Your task to perform on an android device: allow notifications from all sites in the chrome app Image 0: 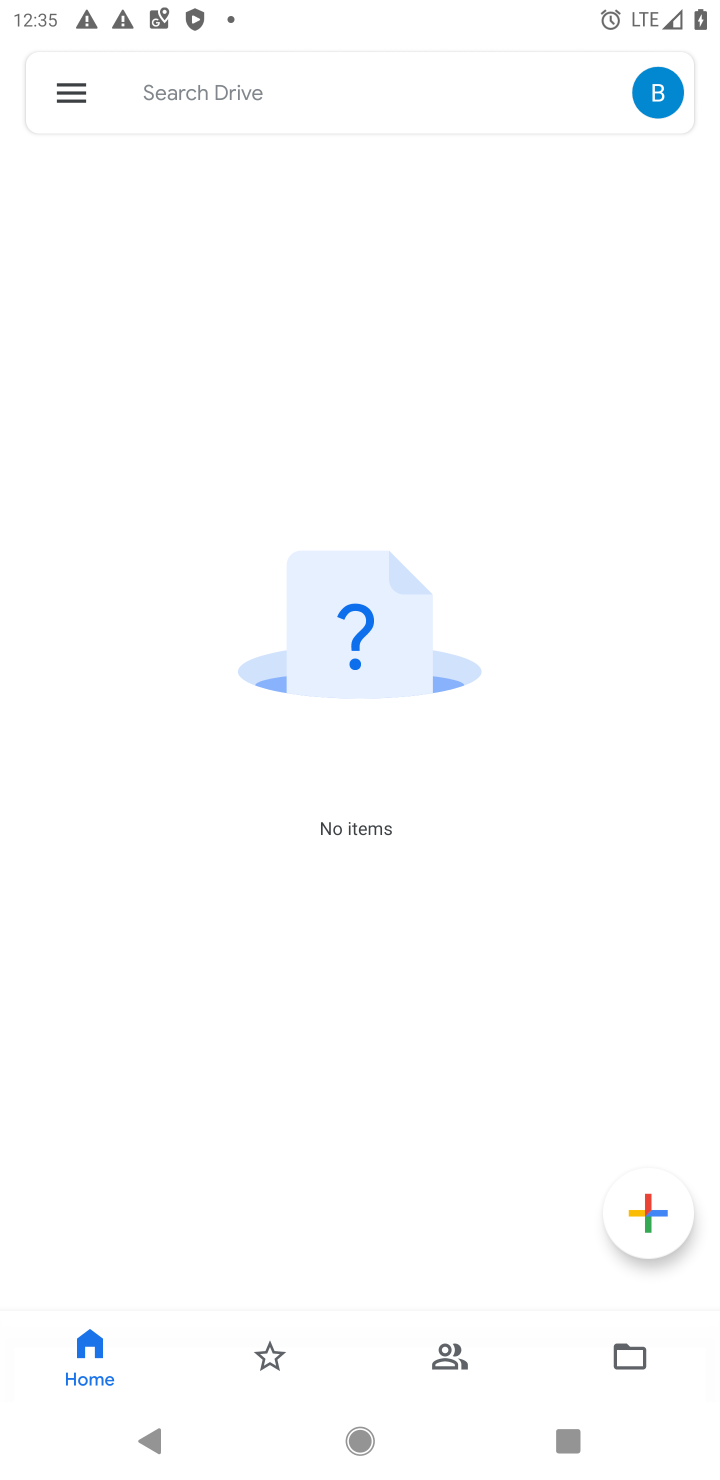
Step 0: press home button
Your task to perform on an android device: allow notifications from all sites in the chrome app Image 1: 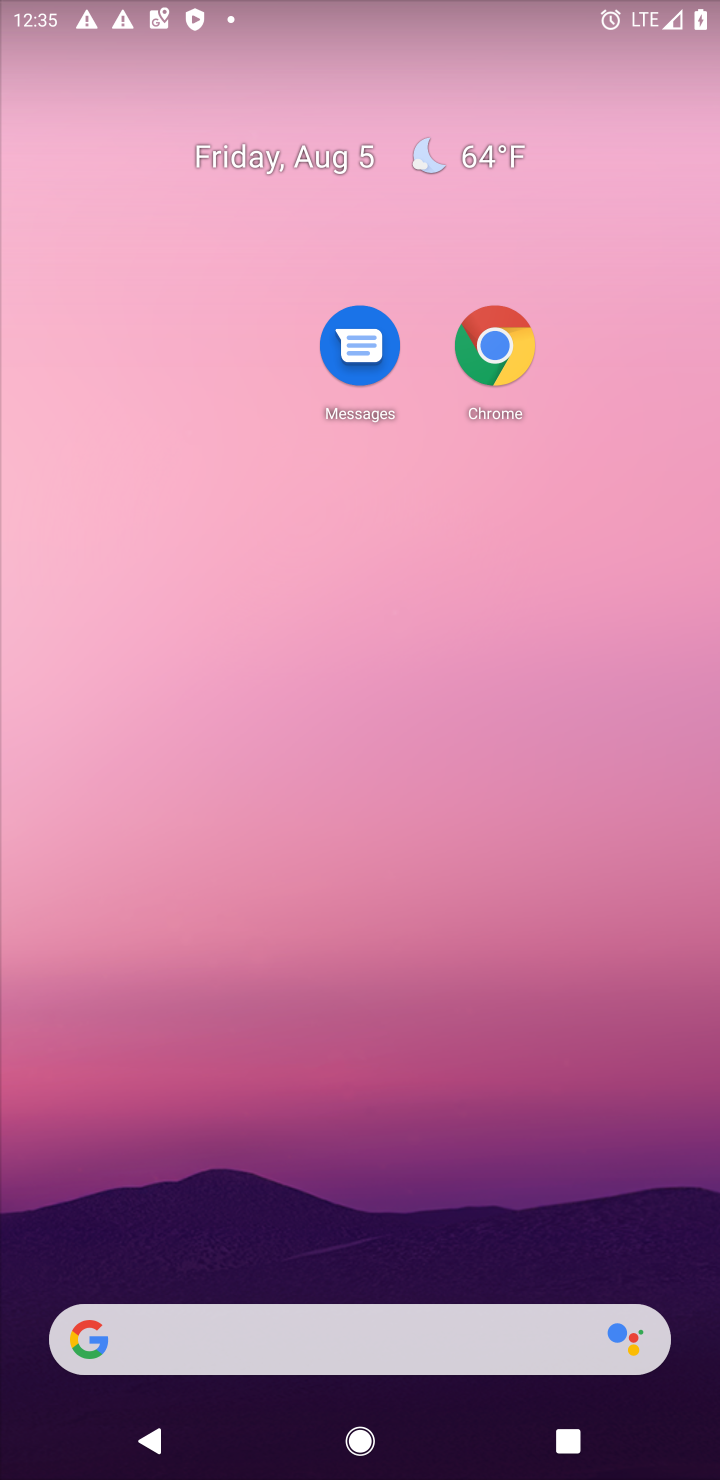
Step 1: drag from (194, 1336) to (345, 10)
Your task to perform on an android device: allow notifications from all sites in the chrome app Image 2: 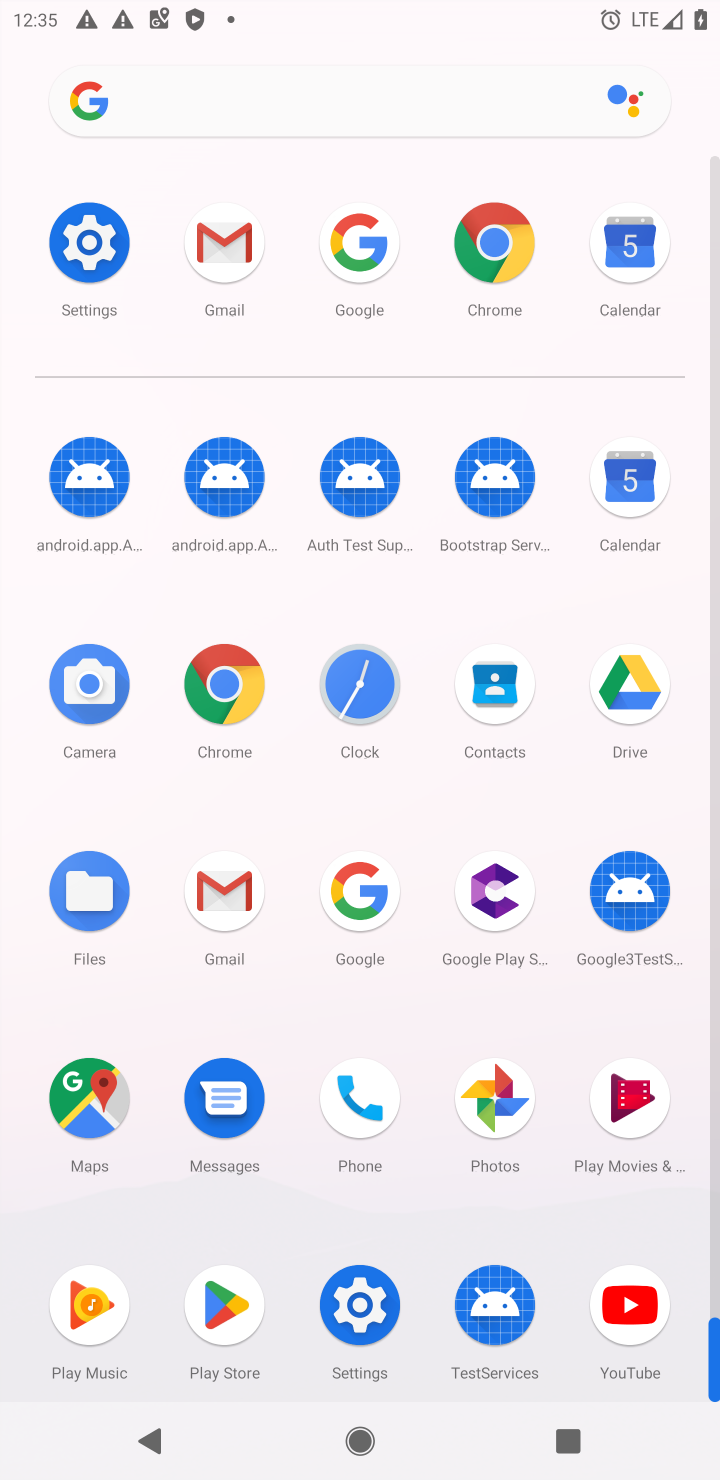
Step 2: click (503, 230)
Your task to perform on an android device: allow notifications from all sites in the chrome app Image 3: 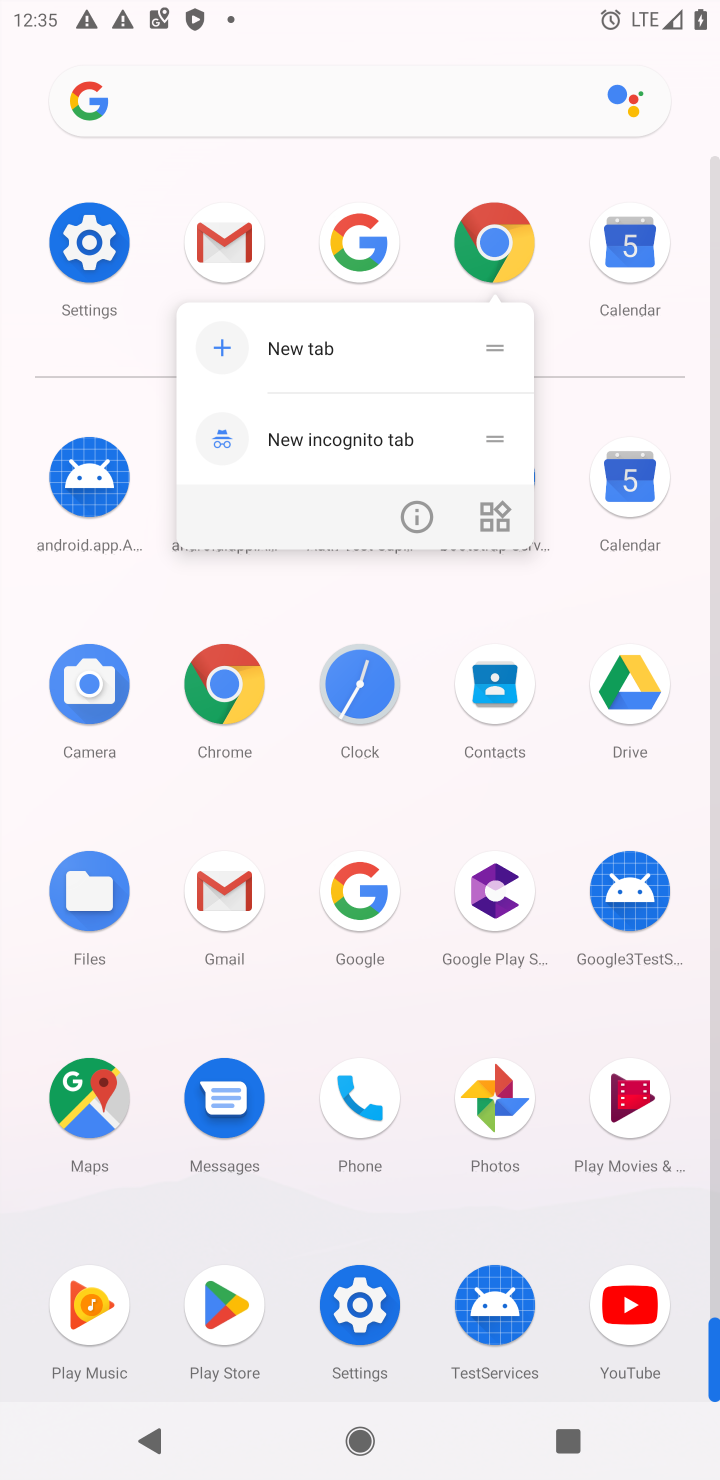
Step 3: click (494, 244)
Your task to perform on an android device: allow notifications from all sites in the chrome app Image 4: 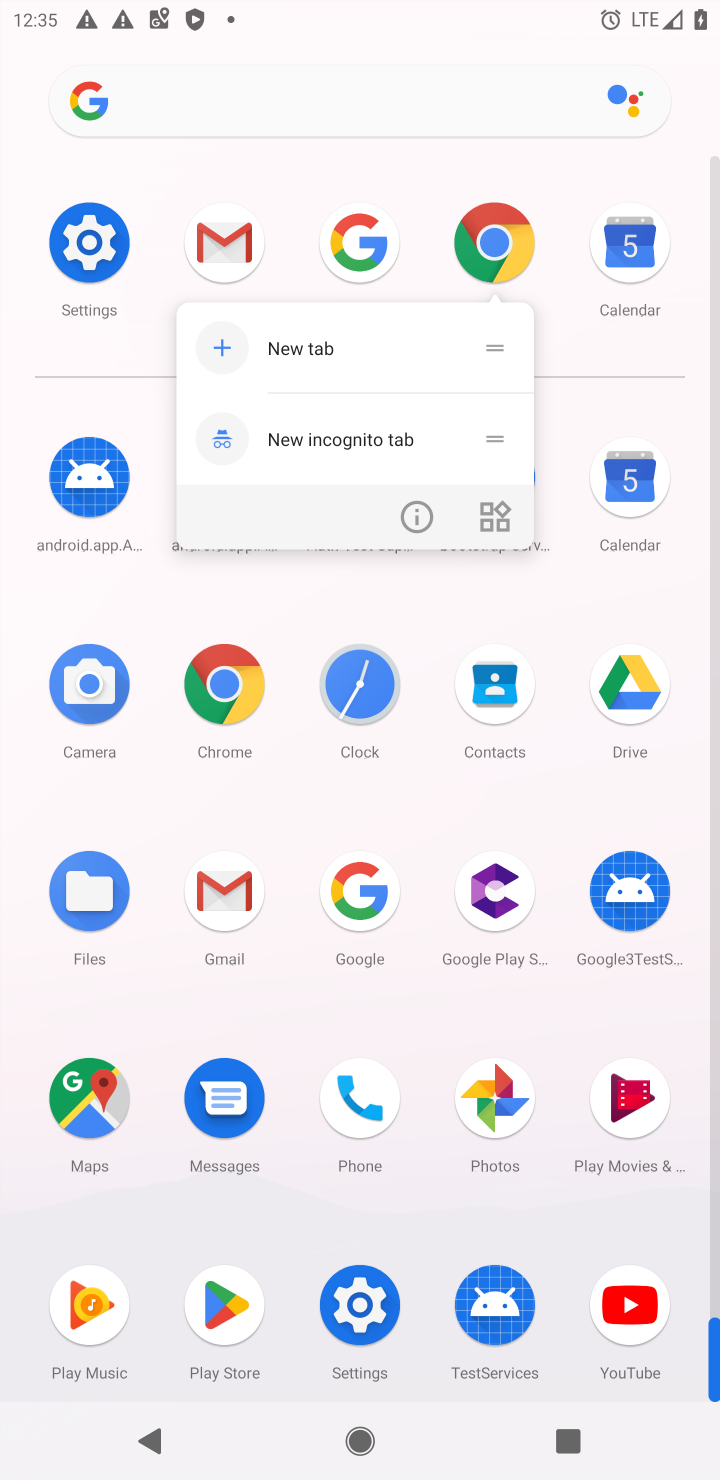
Step 4: click (494, 244)
Your task to perform on an android device: allow notifications from all sites in the chrome app Image 5: 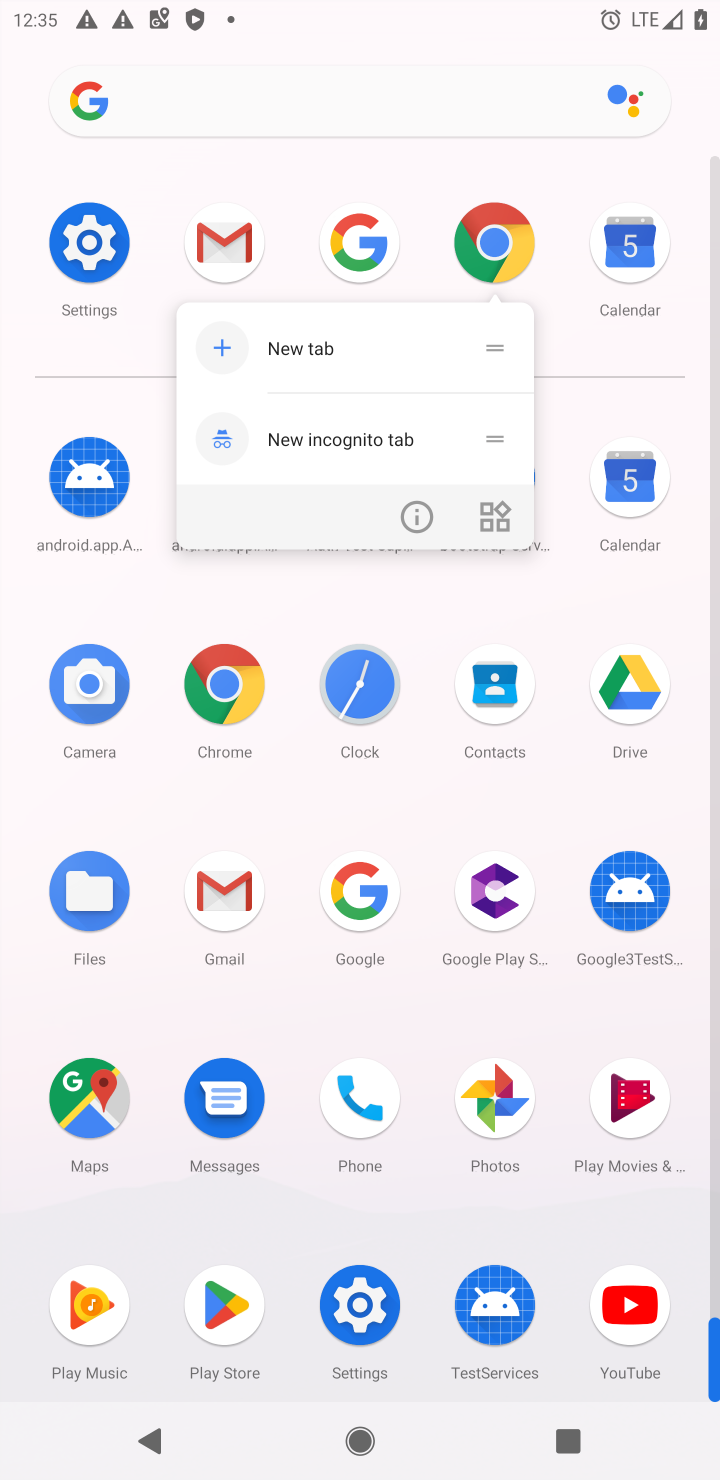
Step 5: click (494, 244)
Your task to perform on an android device: allow notifications from all sites in the chrome app Image 6: 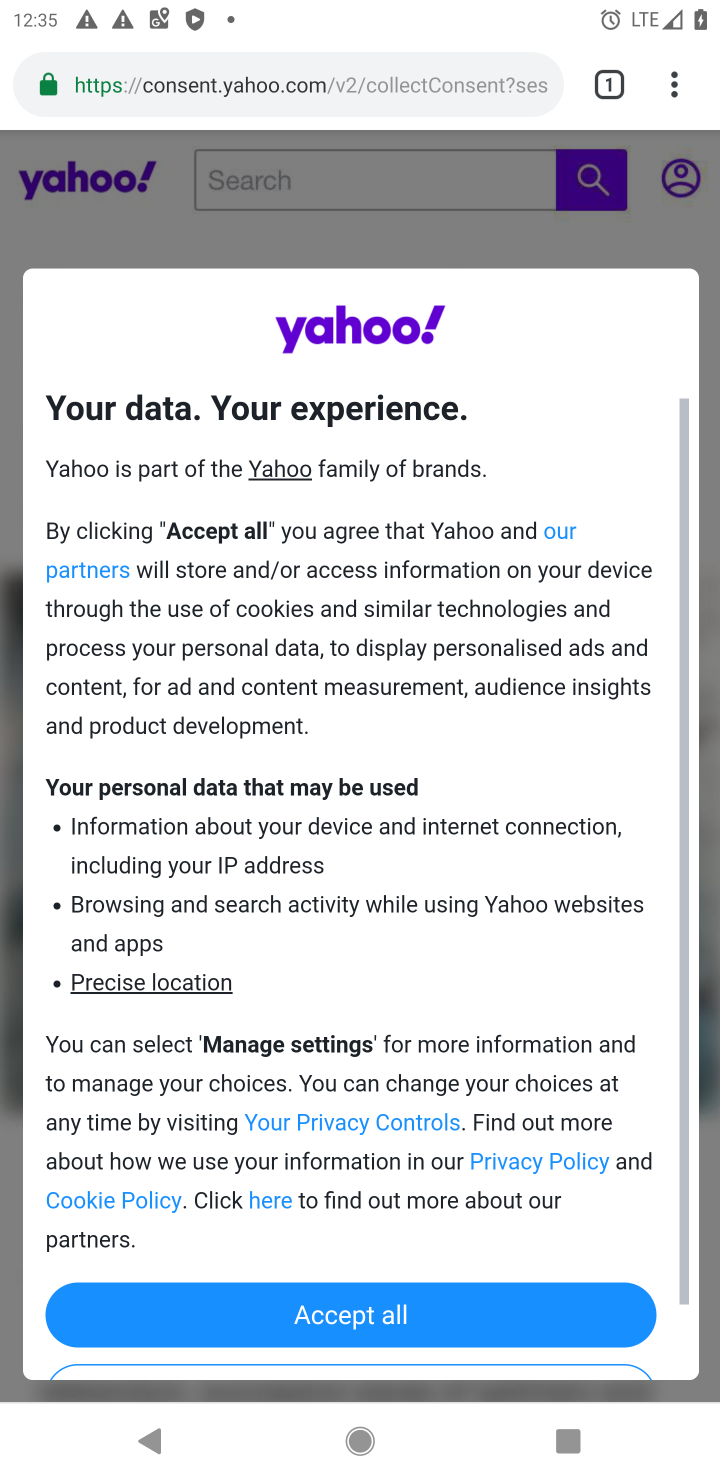
Step 6: drag from (682, 102) to (374, 959)
Your task to perform on an android device: allow notifications from all sites in the chrome app Image 7: 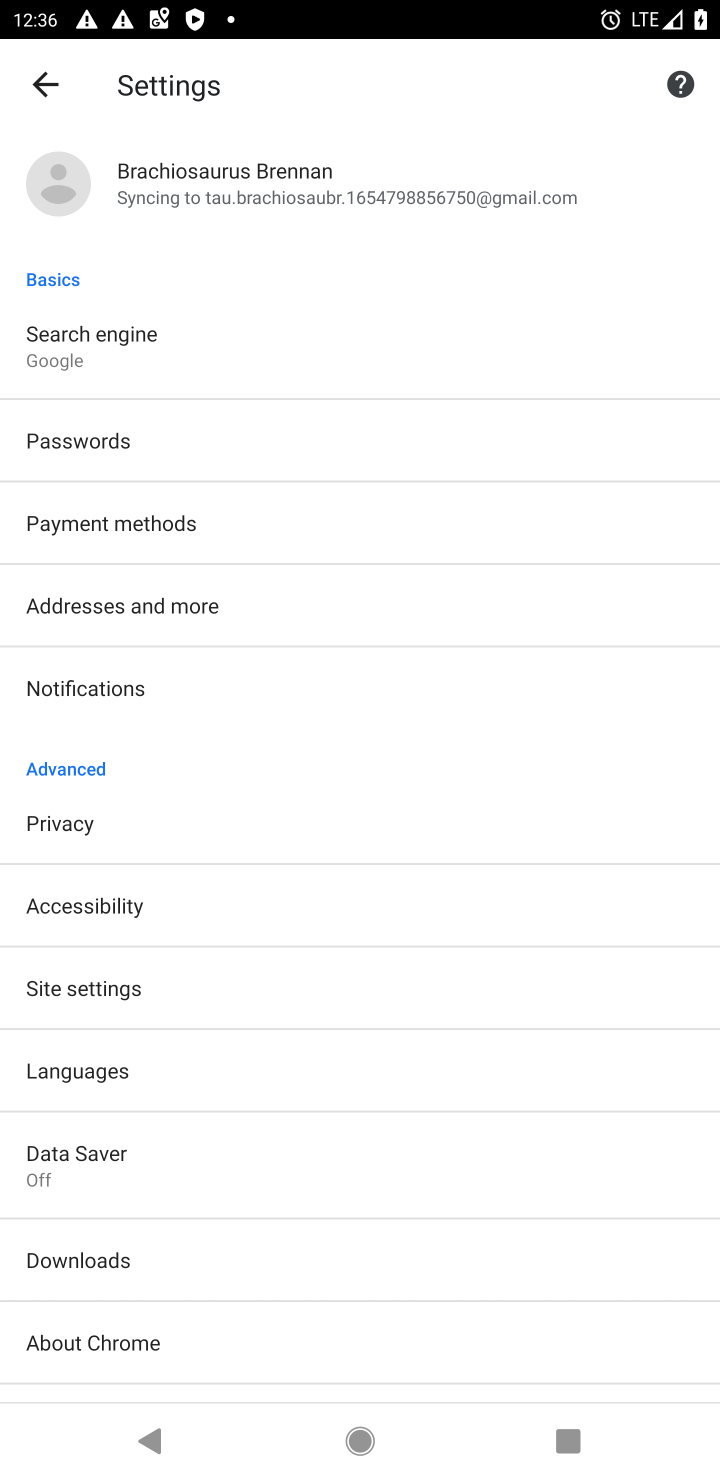
Step 7: click (46, 975)
Your task to perform on an android device: allow notifications from all sites in the chrome app Image 8: 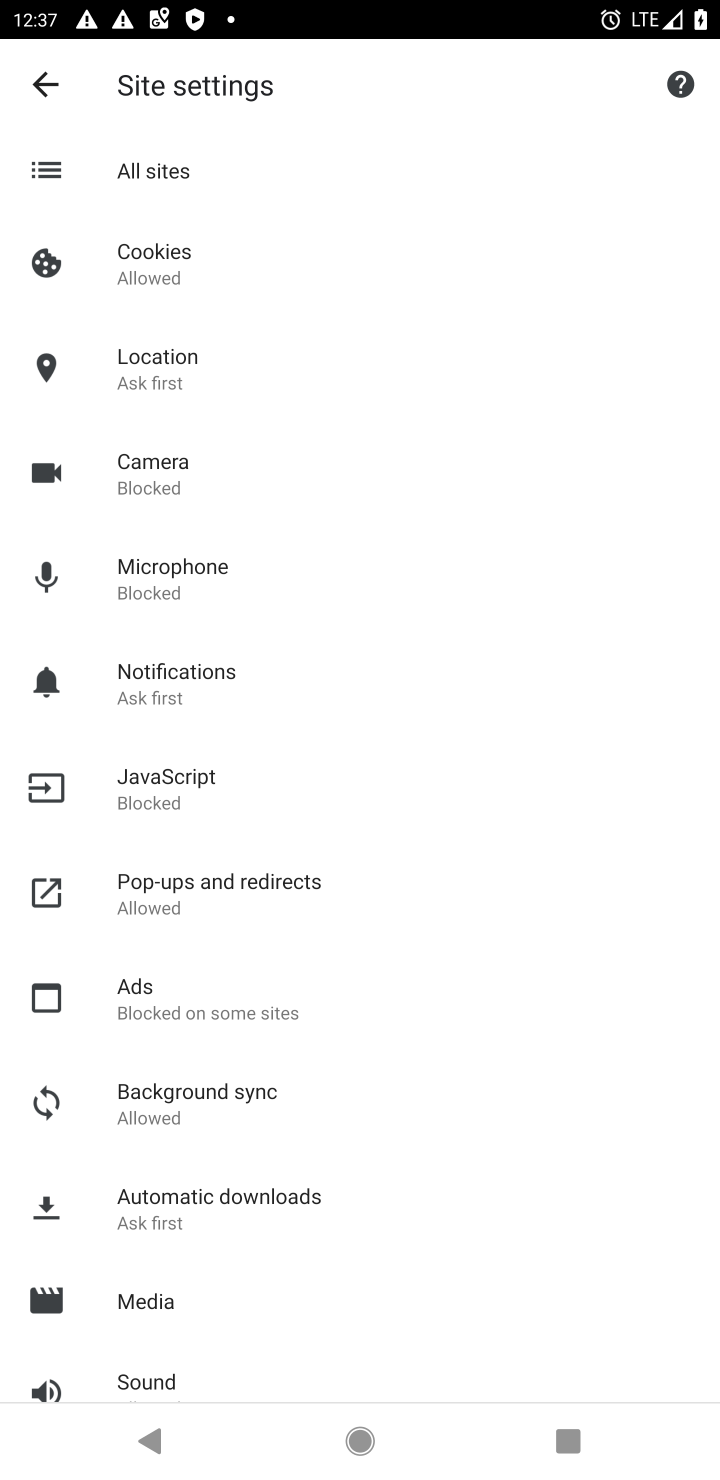
Step 8: click (181, 683)
Your task to perform on an android device: allow notifications from all sites in the chrome app Image 9: 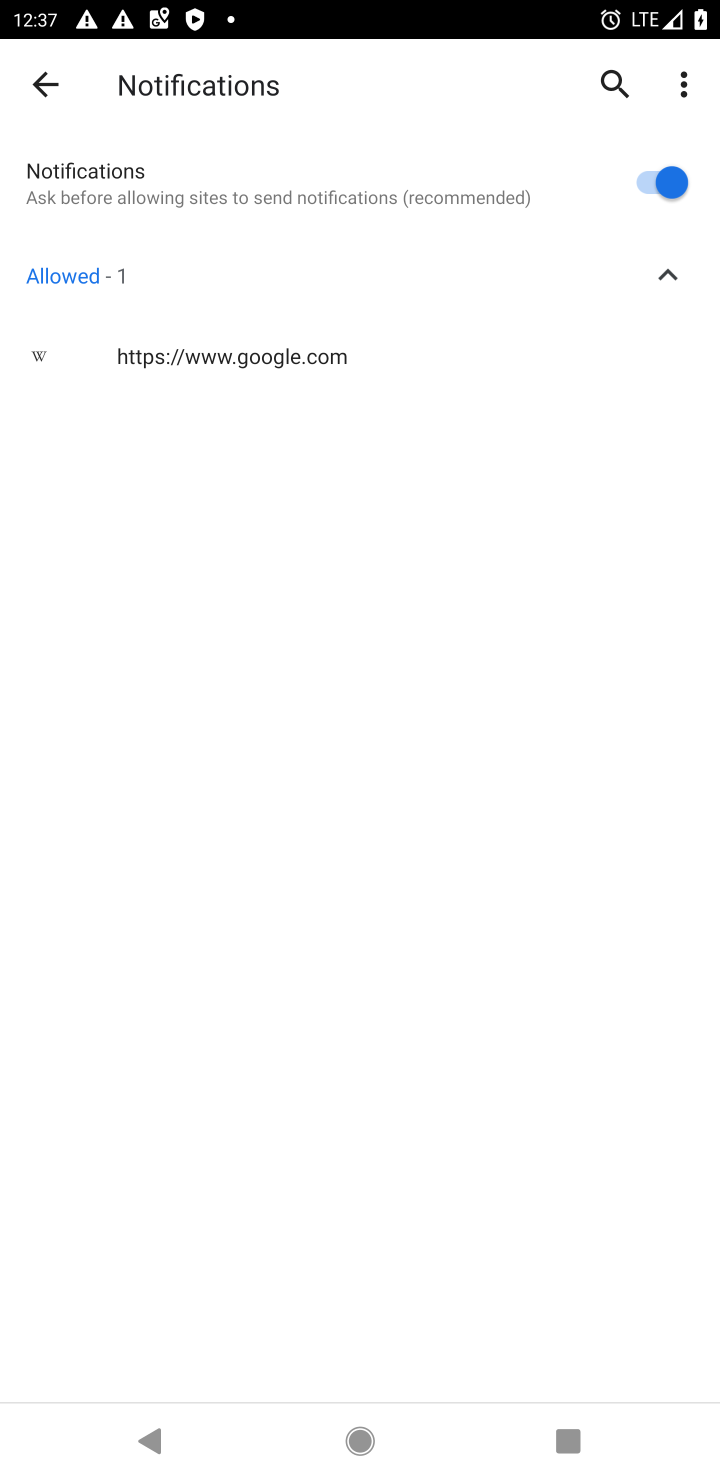
Step 9: task complete